Your task to perform on an android device: turn off data saver in the chrome app Image 0: 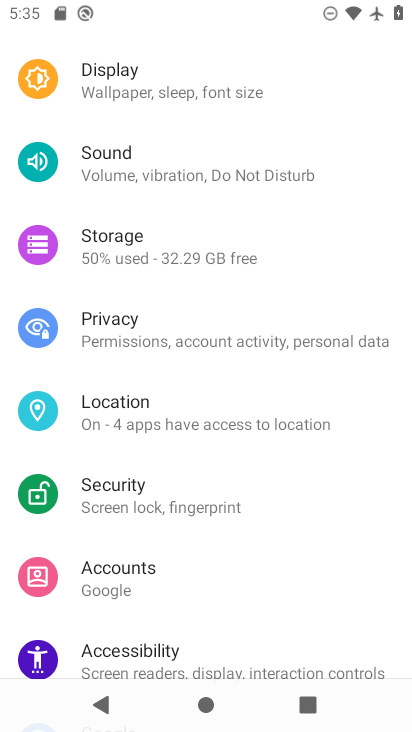
Step 0: press home button
Your task to perform on an android device: turn off data saver in the chrome app Image 1: 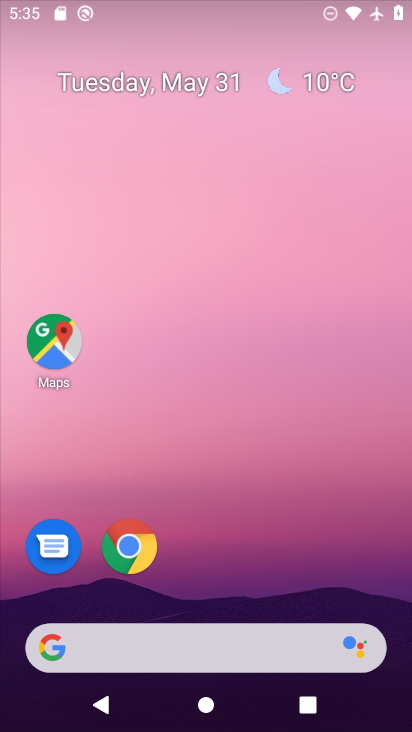
Step 1: click (135, 548)
Your task to perform on an android device: turn off data saver in the chrome app Image 2: 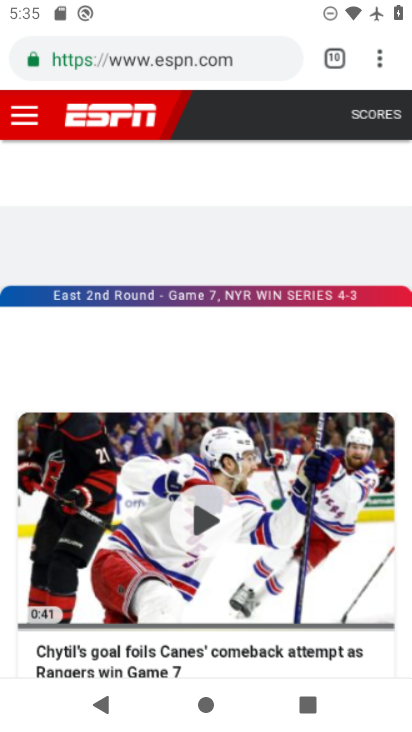
Step 2: click (381, 51)
Your task to perform on an android device: turn off data saver in the chrome app Image 3: 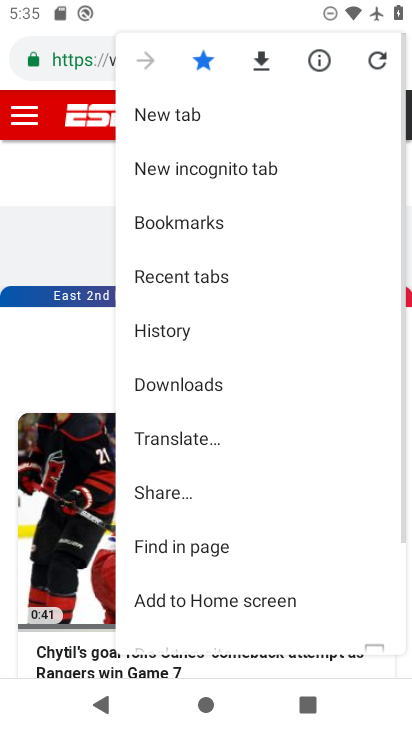
Step 3: drag from (264, 523) to (228, 66)
Your task to perform on an android device: turn off data saver in the chrome app Image 4: 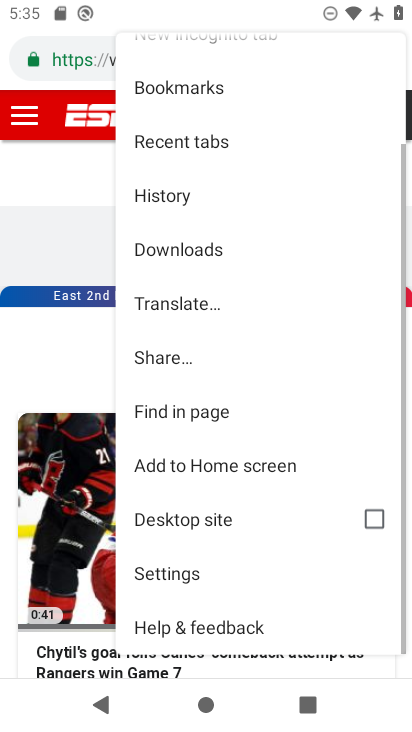
Step 4: click (220, 575)
Your task to perform on an android device: turn off data saver in the chrome app Image 5: 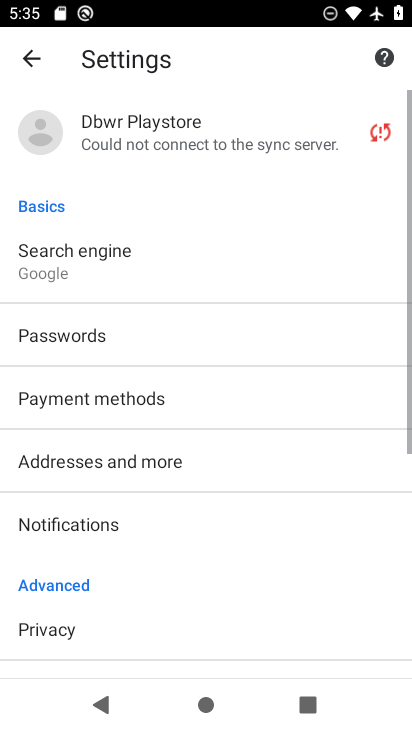
Step 5: drag from (241, 473) to (175, 44)
Your task to perform on an android device: turn off data saver in the chrome app Image 6: 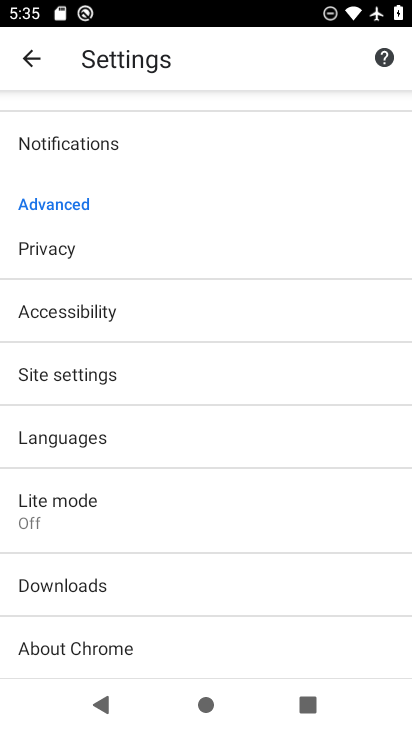
Step 6: click (107, 507)
Your task to perform on an android device: turn off data saver in the chrome app Image 7: 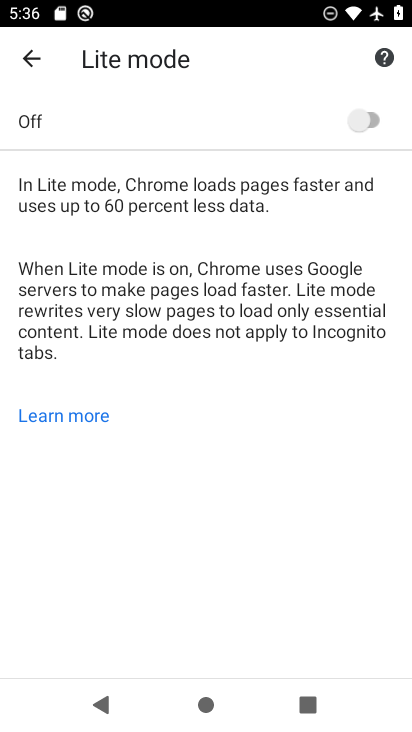
Step 7: task complete